Your task to perform on an android device: open device folders in google photos Image 0: 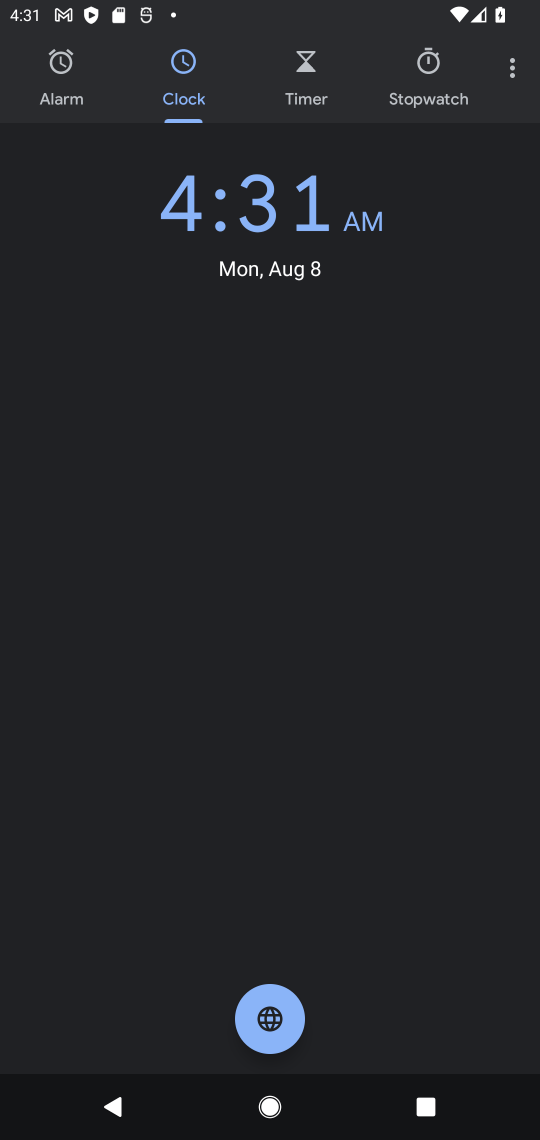
Step 0: press home button
Your task to perform on an android device: open device folders in google photos Image 1: 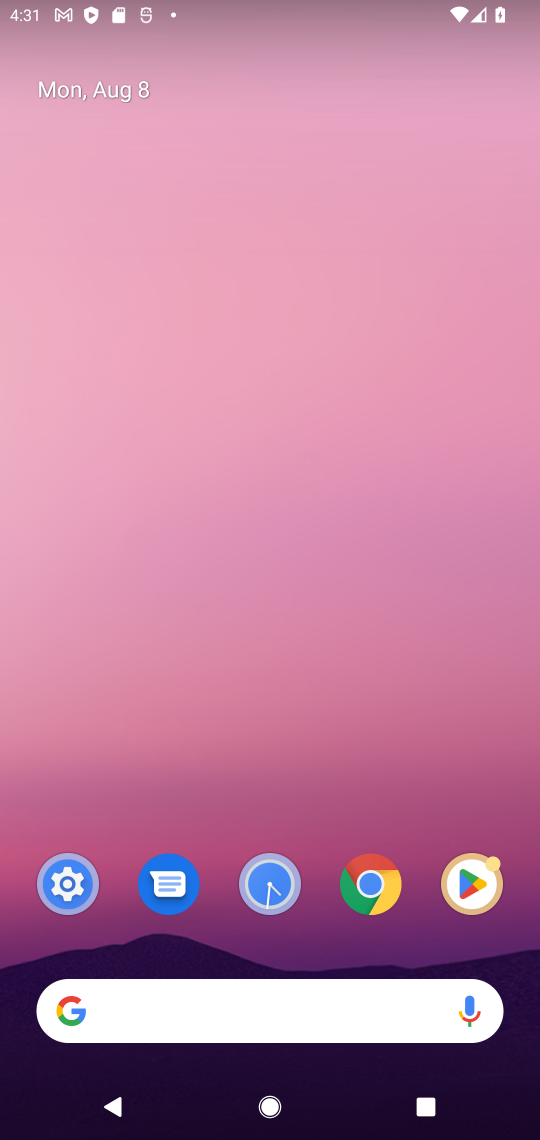
Step 1: drag from (302, 998) to (275, 170)
Your task to perform on an android device: open device folders in google photos Image 2: 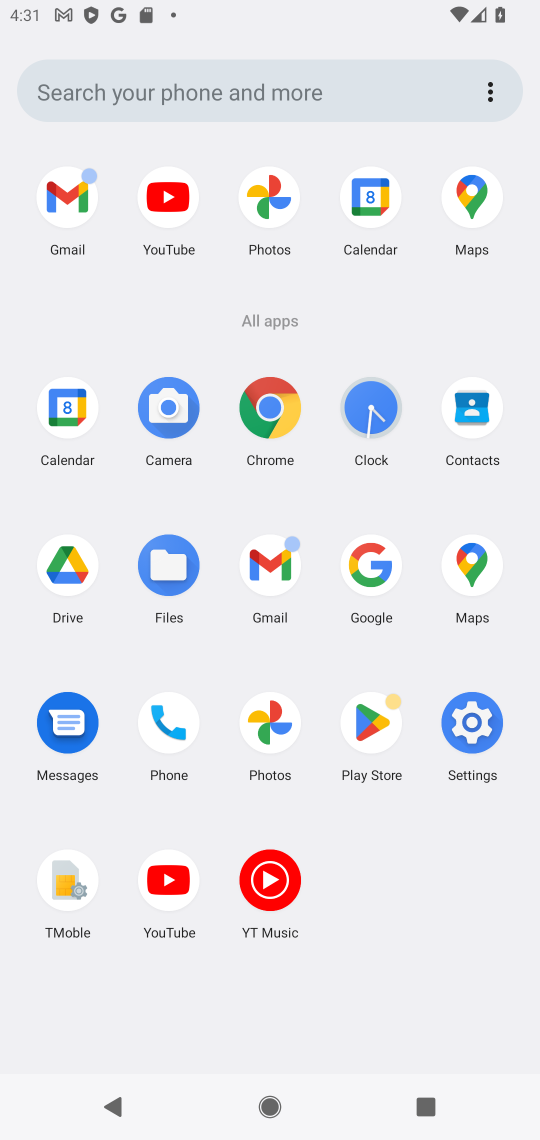
Step 2: click (279, 717)
Your task to perform on an android device: open device folders in google photos Image 3: 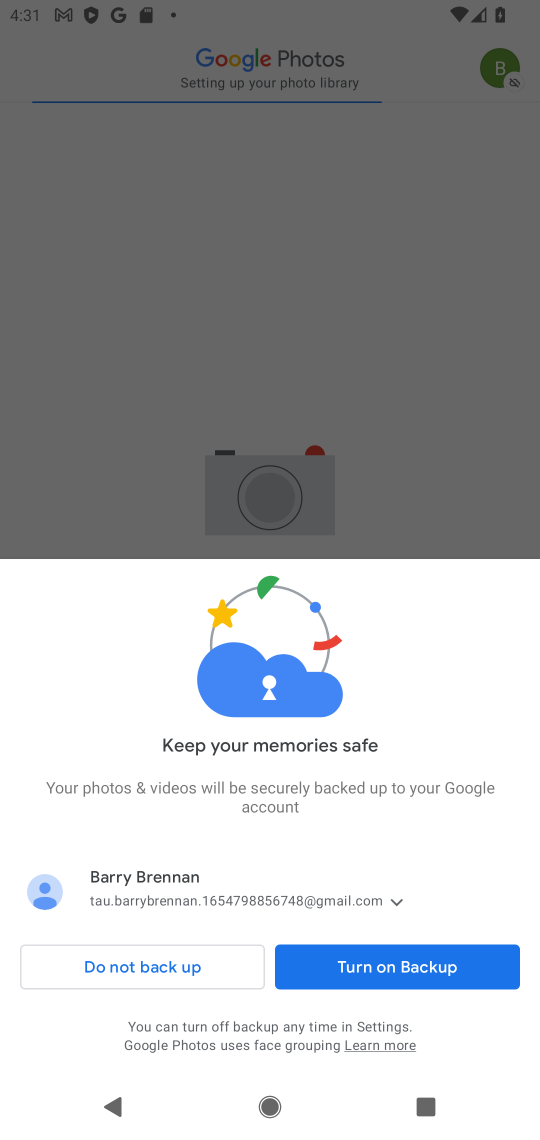
Step 3: click (322, 971)
Your task to perform on an android device: open device folders in google photos Image 4: 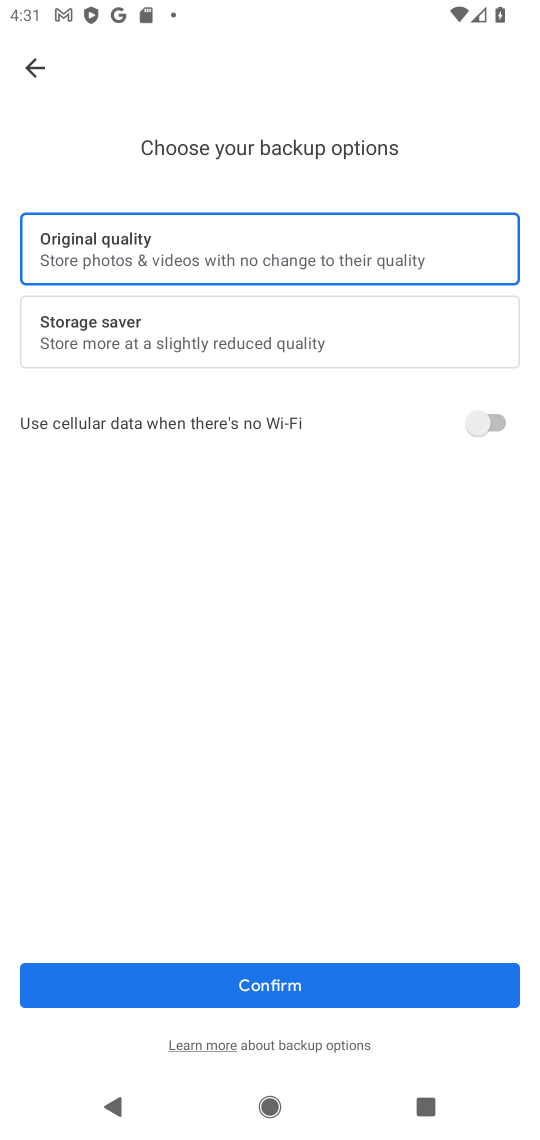
Step 4: click (377, 984)
Your task to perform on an android device: open device folders in google photos Image 5: 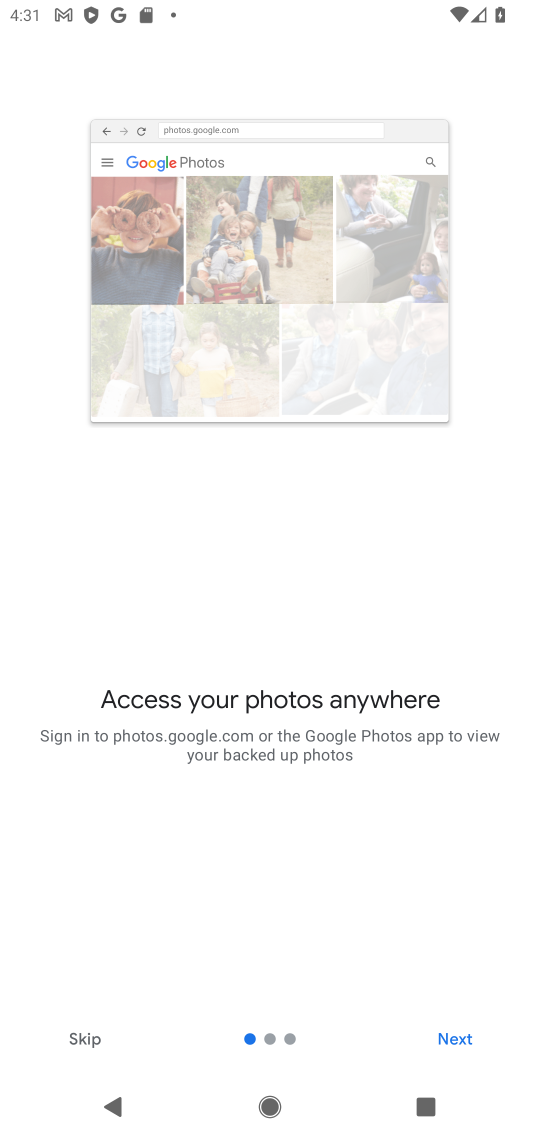
Step 5: click (73, 1042)
Your task to perform on an android device: open device folders in google photos Image 6: 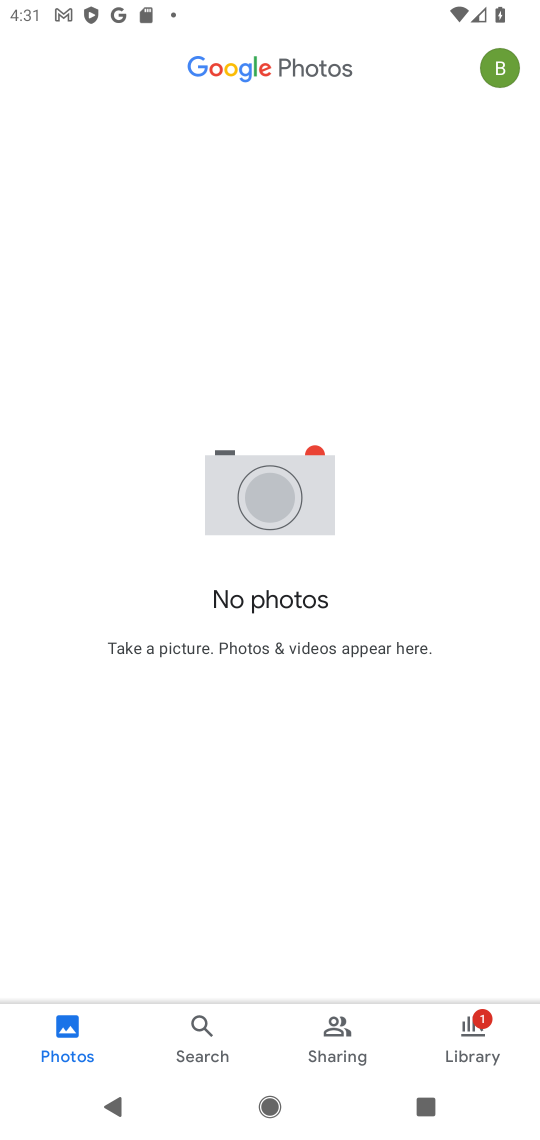
Step 6: click (461, 1035)
Your task to perform on an android device: open device folders in google photos Image 7: 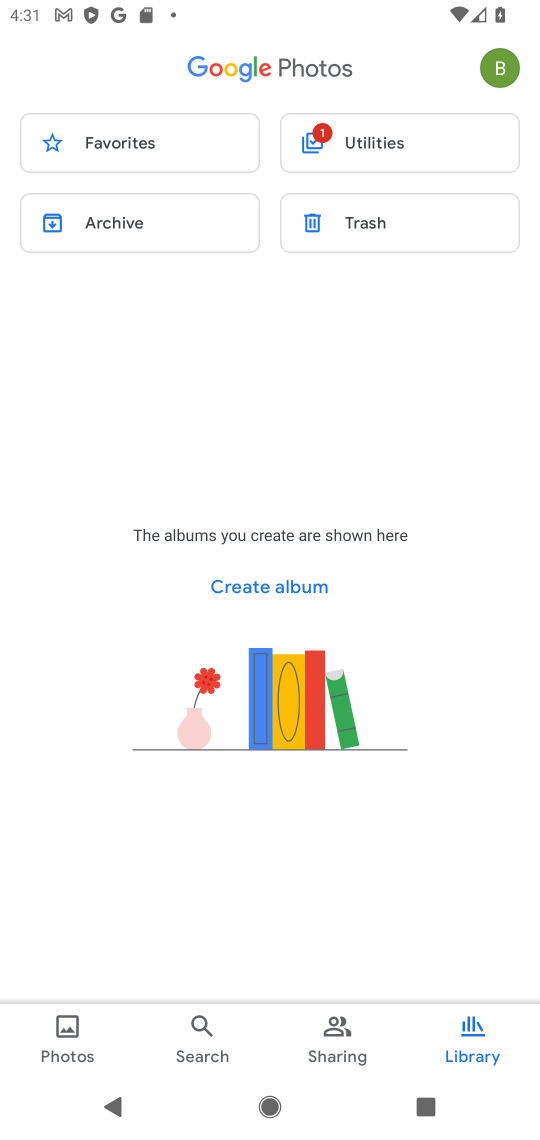
Step 7: task complete